Your task to perform on an android device: Open eBay Image 0: 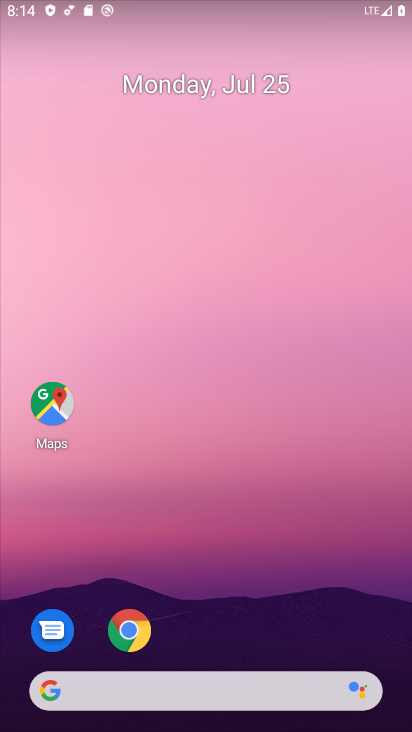
Step 0: click (144, 692)
Your task to perform on an android device: Open eBay Image 1: 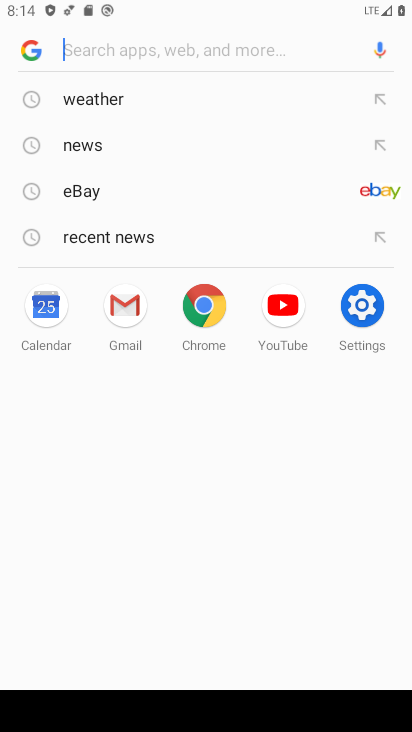
Step 1: click (70, 198)
Your task to perform on an android device: Open eBay Image 2: 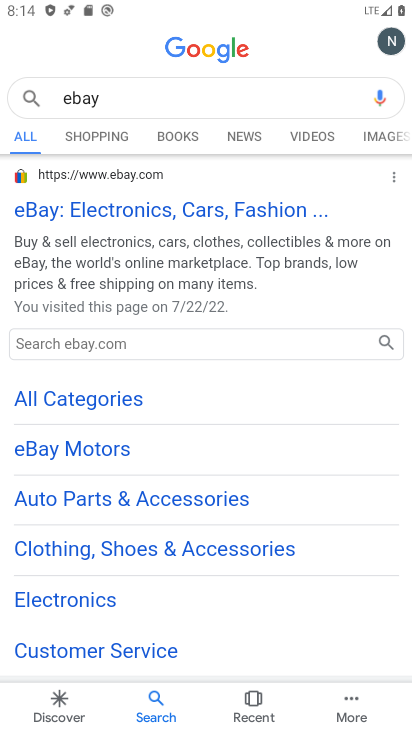
Step 2: task complete